Your task to perform on an android device: open a new tab in the chrome app Image 0: 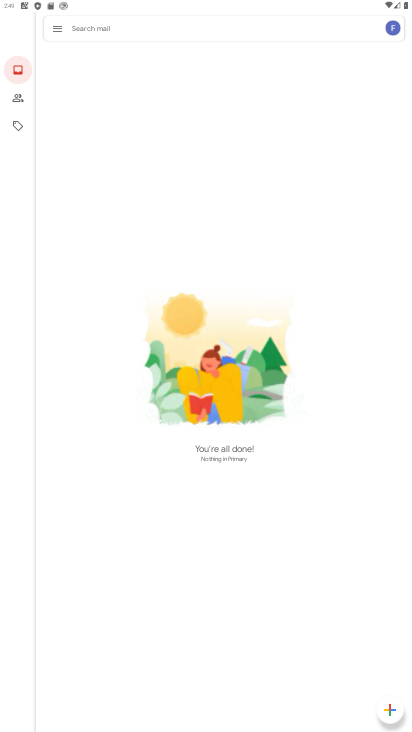
Step 0: press home button
Your task to perform on an android device: open a new tab in the chrome app Image 1: 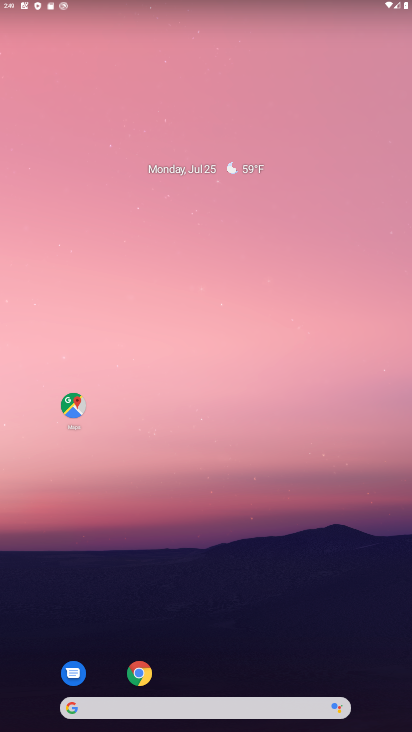
Step 1: click (144, 679)
Your task to perform on an android device: open a new tab in the chrome app Image 2: 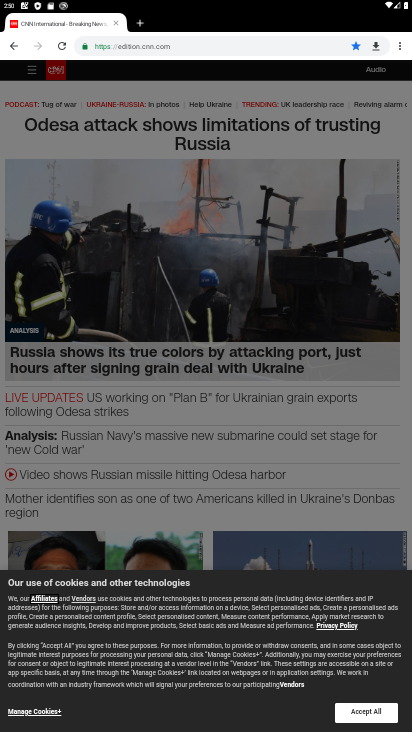
Step 2: click (403, 45)
Your task to perform on an android device: open a new tab in the chrome app Image 3: 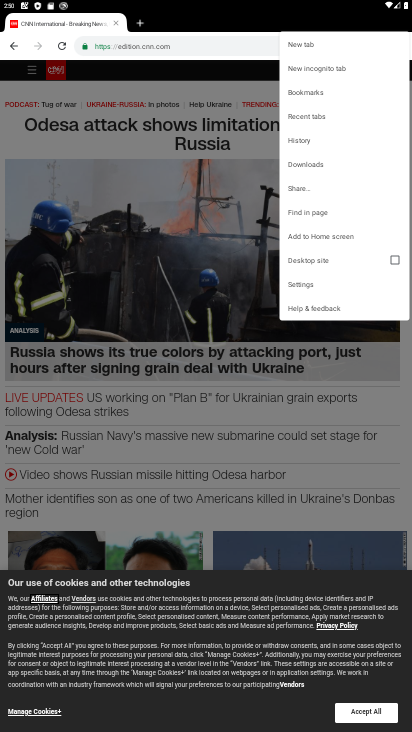
Step 3: click (335, 45)
Your task to perform on an android device: open a new tab in the chrome app Image 4: 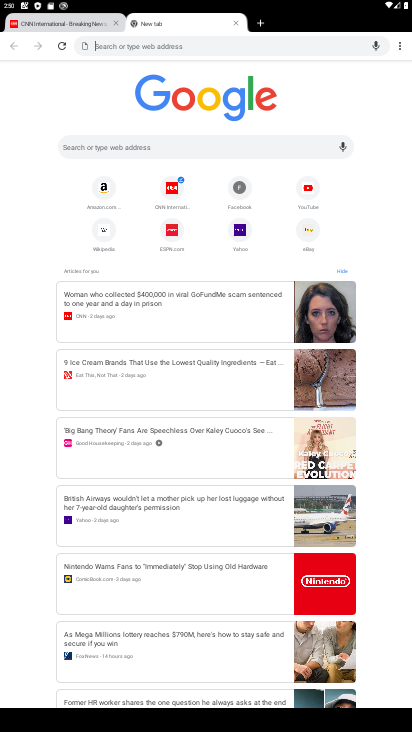
Step 4: task complete